Your task to perform on an android device: empty trash in the gmail app Image 0: 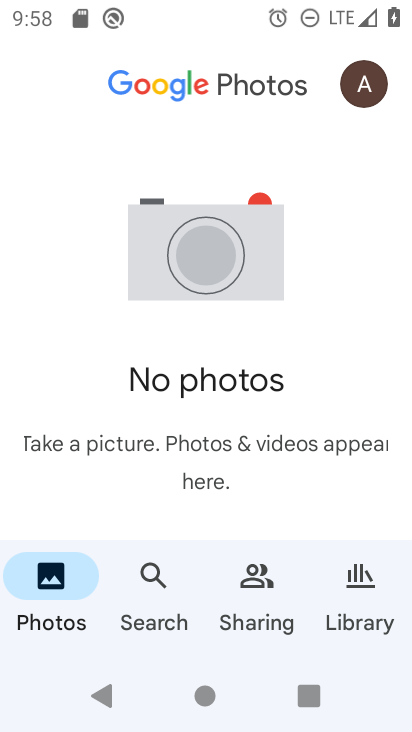
Step 0: press home button
Your task to perform on an android device: empty trash in the gmail app Image 1: 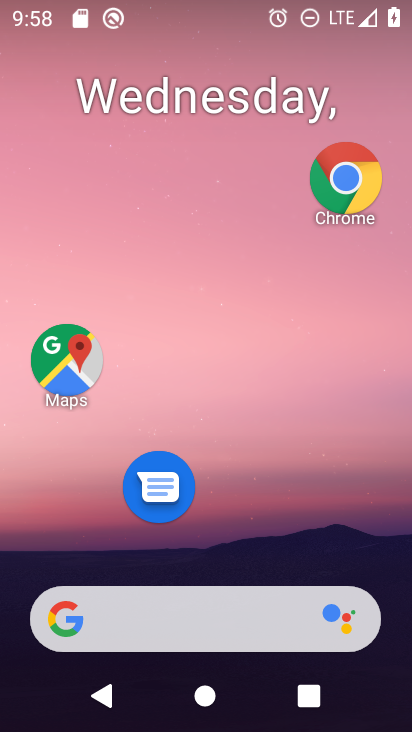
Step 1: drag from (264, 631) to (254, 134)
Your task to perform on an android device: empty trash in the gmail app Image 2: 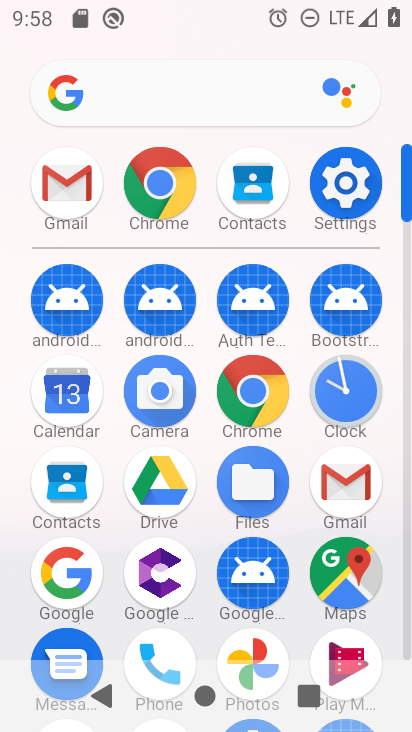
Step 2: drag from (196, 485) to (211, 242)
Your task to perform on an android device: empty trash in the gmail app Image 3: 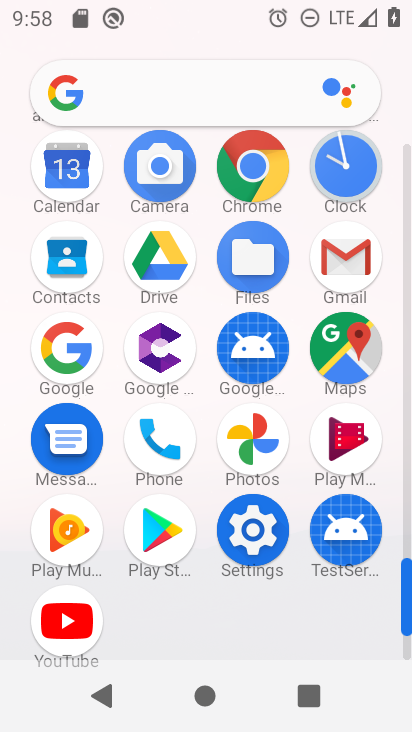
Step 3: click (354, 253)
Your task to perform on an android device: empty trash in the gmail app Image 4: 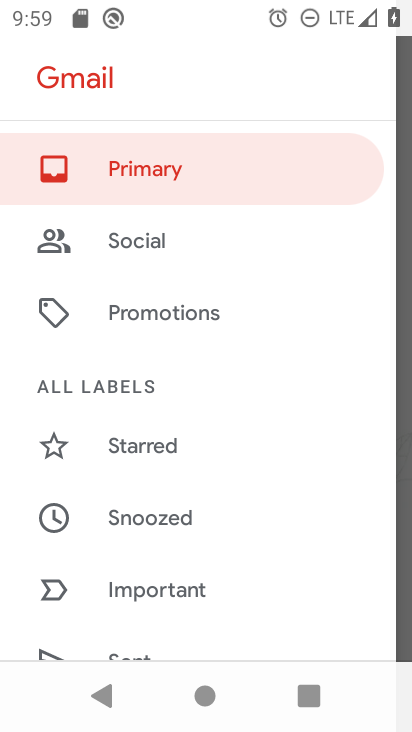
Step 4: drag from (183, 558) to (194, 270)
Your task to perform on an android device: empty trash in the gmail app Image 5: 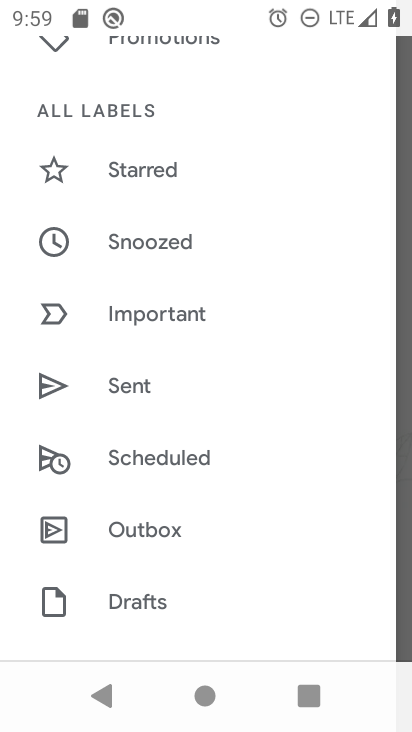
Step 5: drag from (161, 494) to (171, 309)
Your task to perform on an android device: empty trash in the gmail app Image 6: 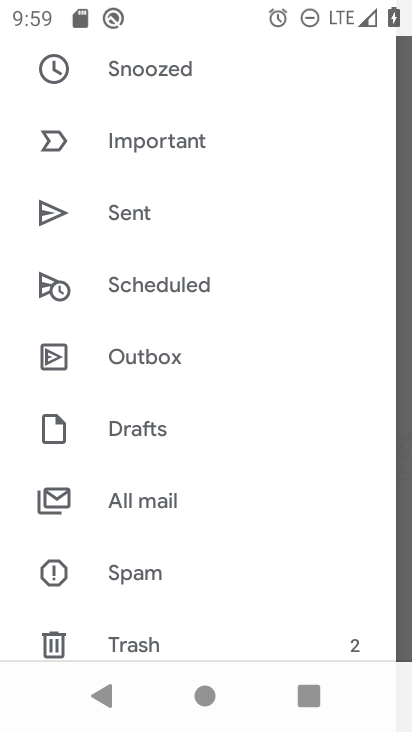
Step 6: click (154, 636)
Your task to perform on an android device: empty trash in the gmail app Image 7: 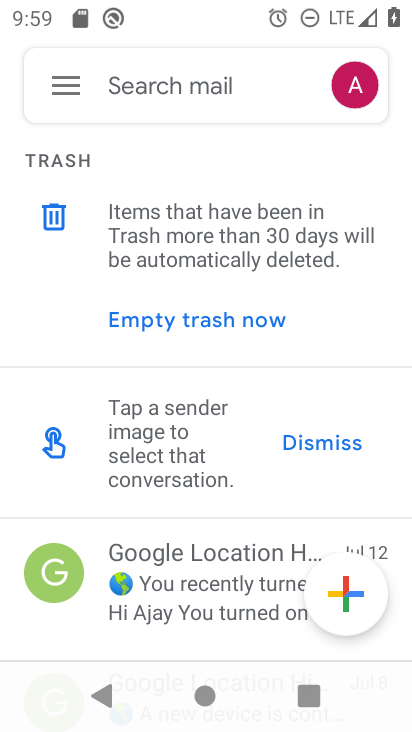
Step 7: click (150, 314)
Your task to perform on an android device: empty trash in the gmail app Image 8: 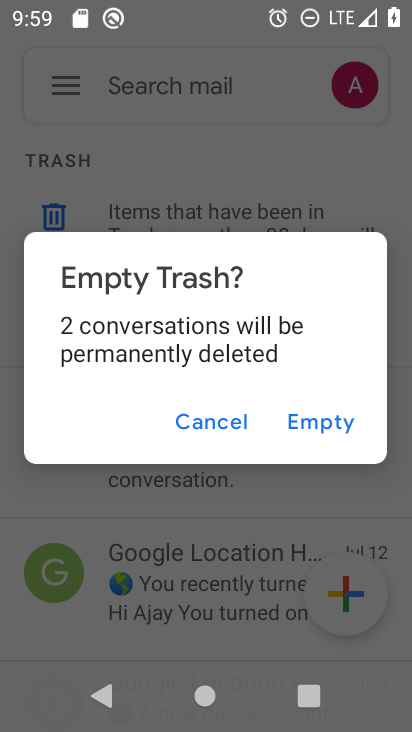
Step 8: click (333, 421)
Your task to perform on an android device: empty trash in the gmail app Image 9: 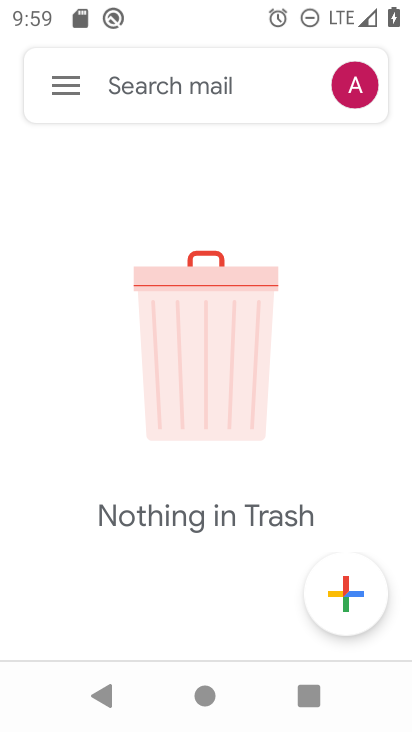
Step 9: task complete